Your task to perform on an android device: Go to display settings Image 0: 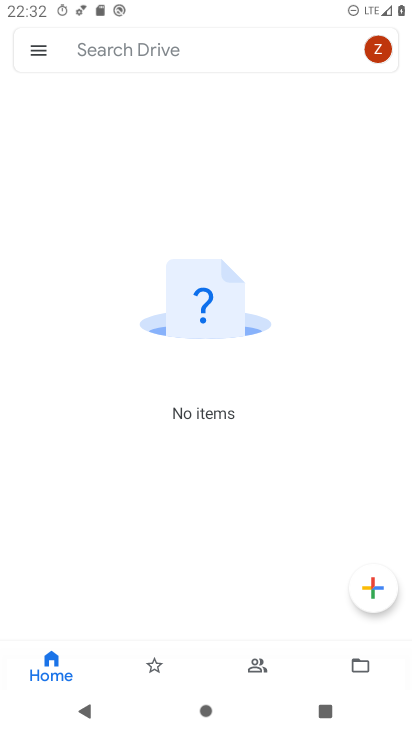
Step 0: press home button
Your task to perform on an android device: Go to display settings Image 1: 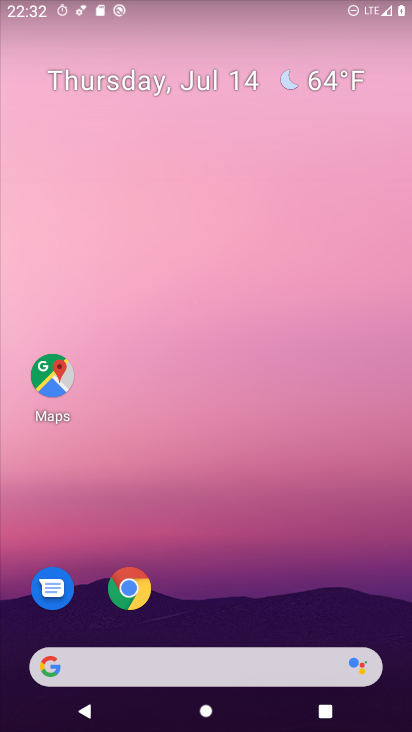
Step 1: drag from (324, 581) to (361, 120)
Your task to perform on an android device: Go to display settings Image 2: 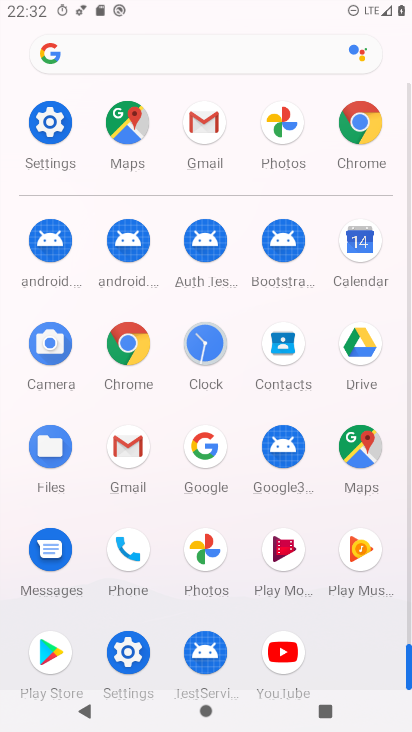
Step 2: click (136, 654)
Your task to perform on an android device: Go to display settings Image 3: 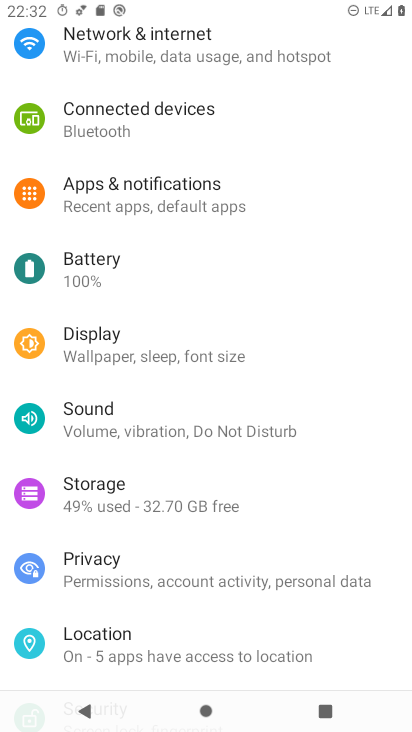
Step 3: drag from (344, 291) to (342, 409)
Your task to perform on an android device: Go to display settings Image 4: 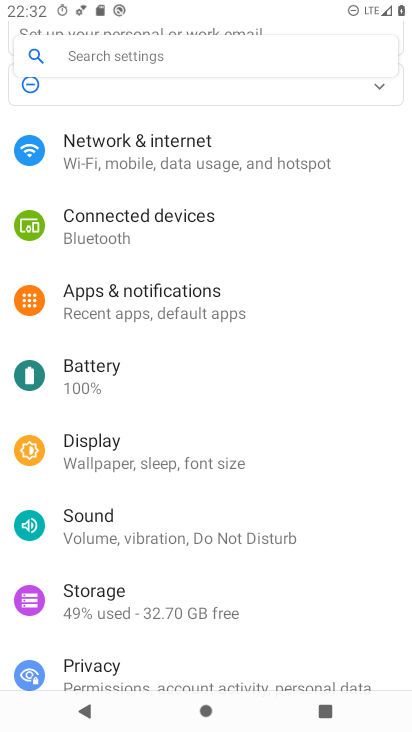
Step 4: drag from (334, 311) to (333, 410)
Your task to perform on an android device: Go to display settings Image 5: 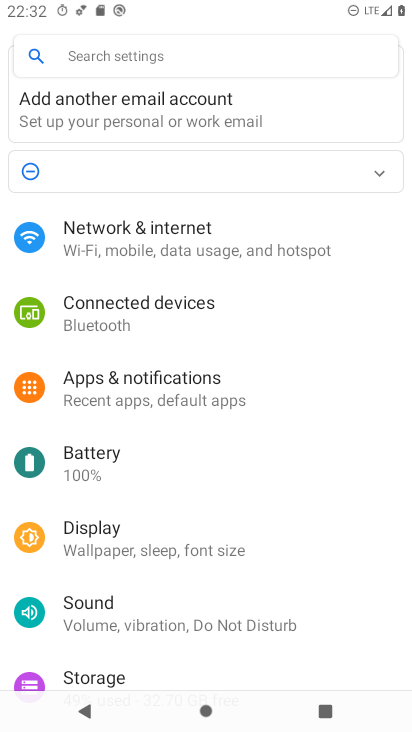
Step 5: drag from (333, 357) to (340, 469)
Your task to perform on an android device: Go to display settings Image 6: 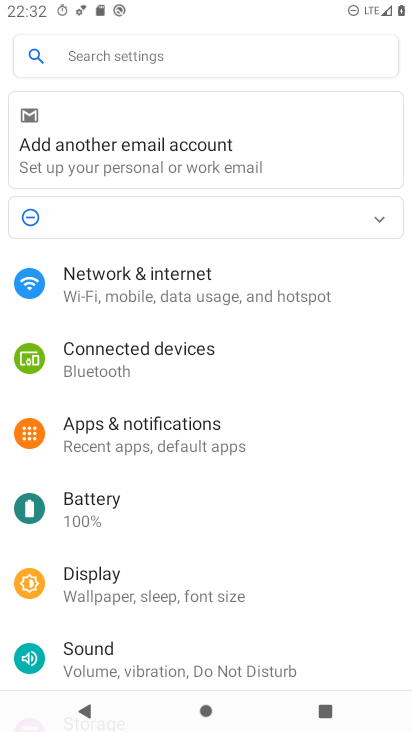
Step 6: drag from (336, 373) to (339, 482)
Your task to perform on an android device: Go to display settings Image 7: 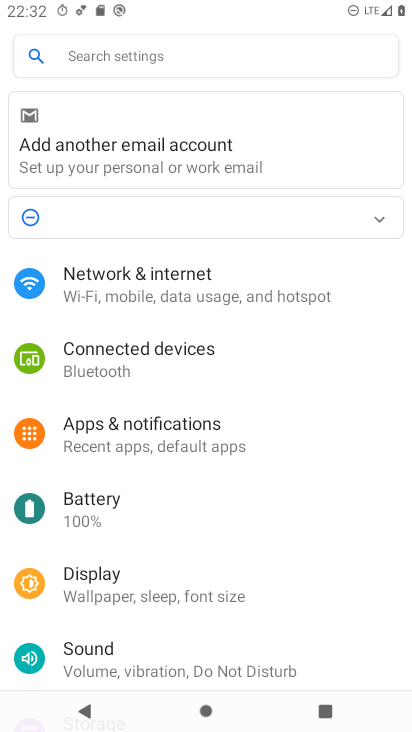
Step 7: drag from (335, 403) to (336, 523)
Your task to perform on an android device: Go to display settings Image 8: 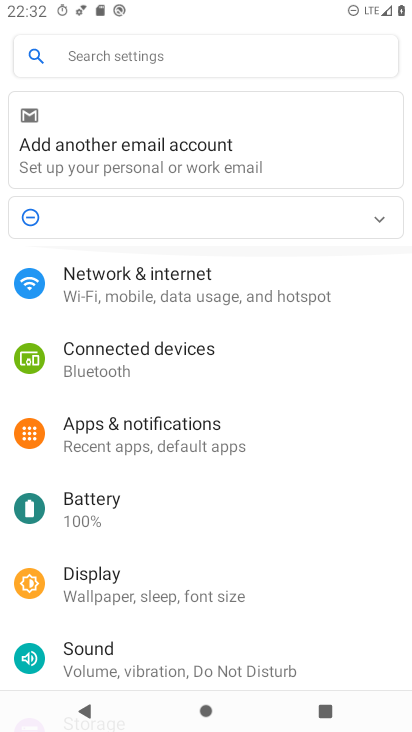
Step 8: drag from (330, 555) to (330, 488)
Your task to perform on an android device: Go to display settings Image 9: 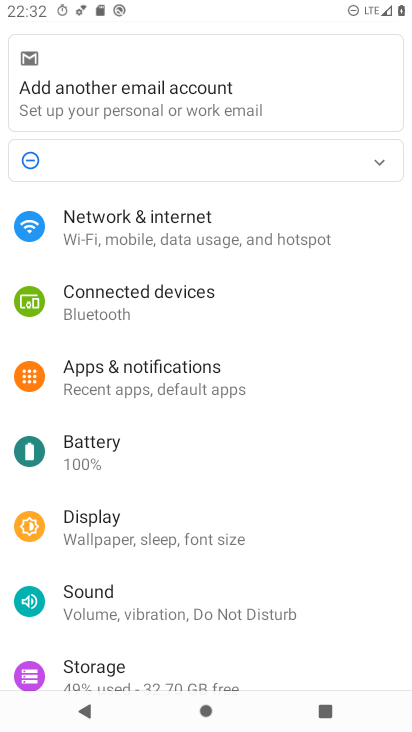
Step 9: drag from (341, 558) to (345, 469)
Your task to perform on an android device: Go to display settings Image 10: 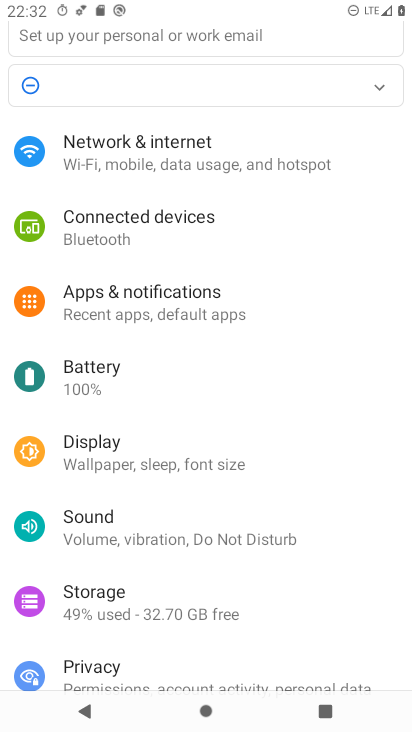
Step 10: click (214, 465)
Your task to perform on an android device: Go to display settings Image 11: 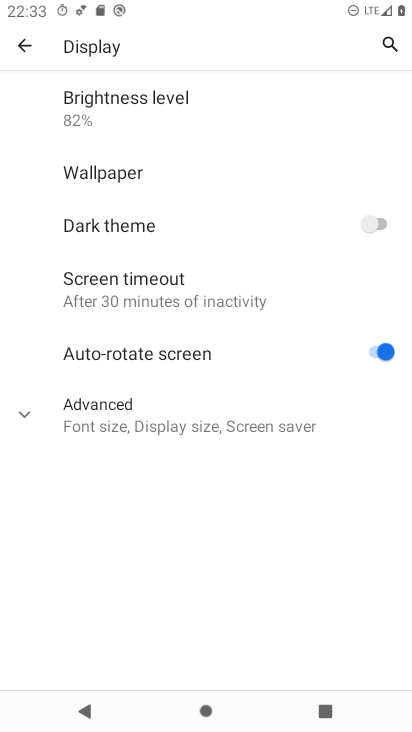
Step 11: click (286, 407)
Your task to perform on an android device: Go to display settings Image 12: 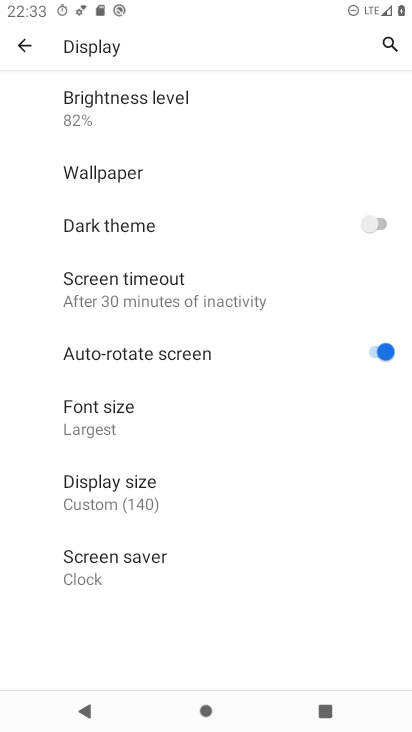
Step 12: task complete